Your task to perform on an android device: Open settings Image 0: 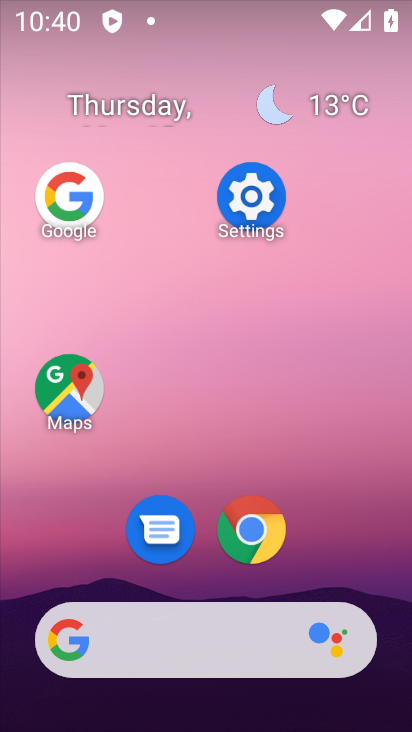
Step 0: click (258, 198)
Your task to perform on an android device: Open settings Image 1: 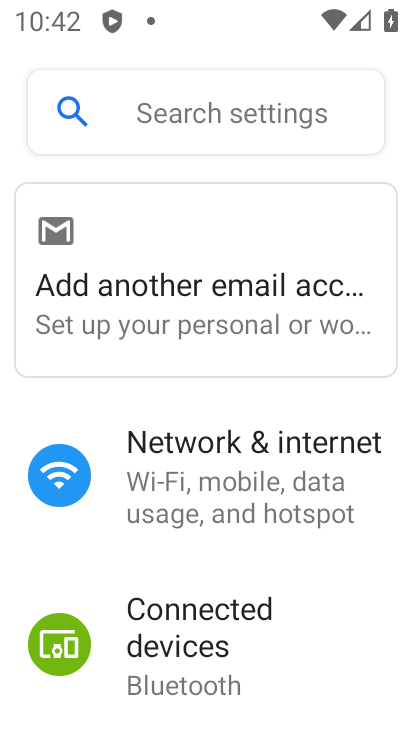
Step 1: task complete